Your task to perform on an android device: Search for sushi restaurants on Maps Image 0: 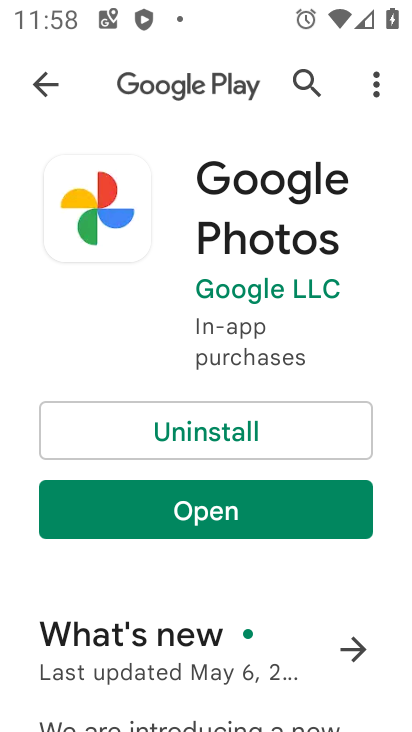
Step 0: press home button
Your task to perform on an android device: Search for sushi restaurants on Maps Image 1: 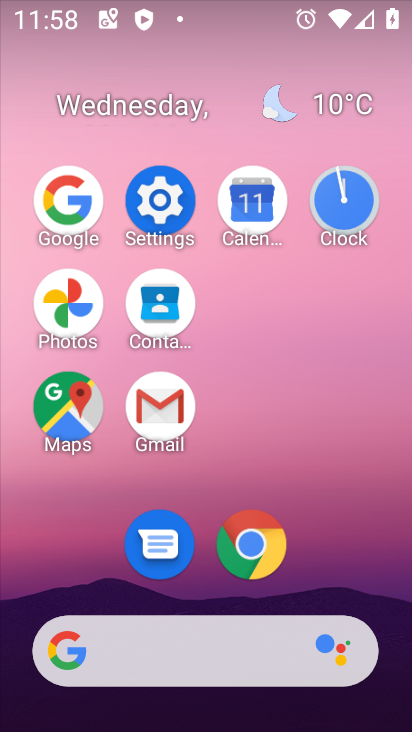
Step 1: click (71, 387)
Your task to perform on an android device: Search for sushi restaurants on Maps Image 2: 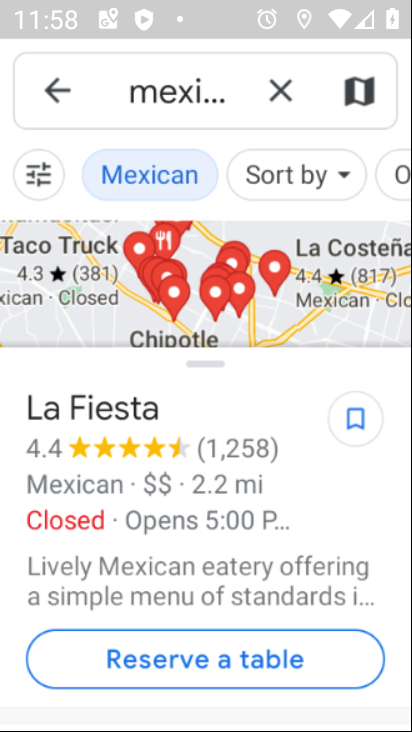
Step 2: click (289, 88)
Your task to perform on an android device: Search for sushi restaurants on Maps Image 3: 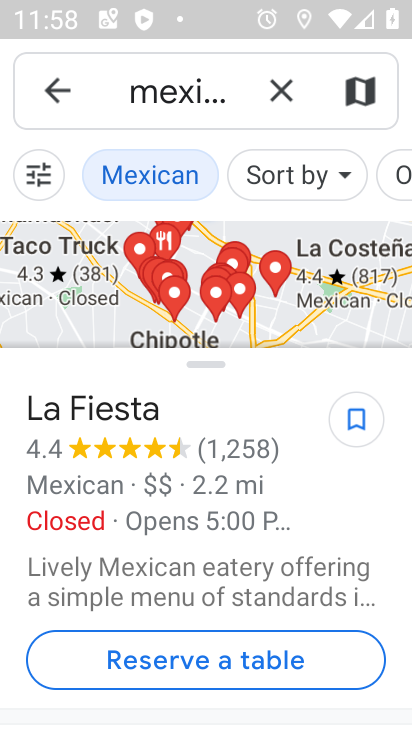
Step 3: click (289, 85)
Your task to perform on an android device: Search for sushi restaurants on Maps Image 4: 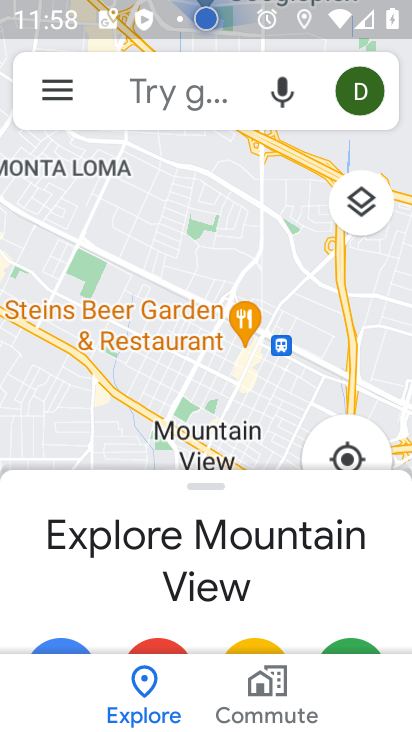
Step 4: click (191, 90)
Your task to perform on an android device: Search for sushi restaurants on Maps Image 5: 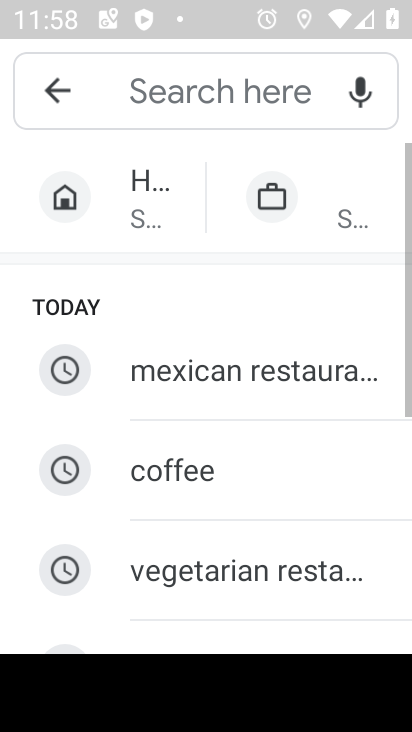
Step 5: drag from (238, 538) to (245, 232)
Your task to perform on an android device: Search for sushi restaurants on Maps Image 6: 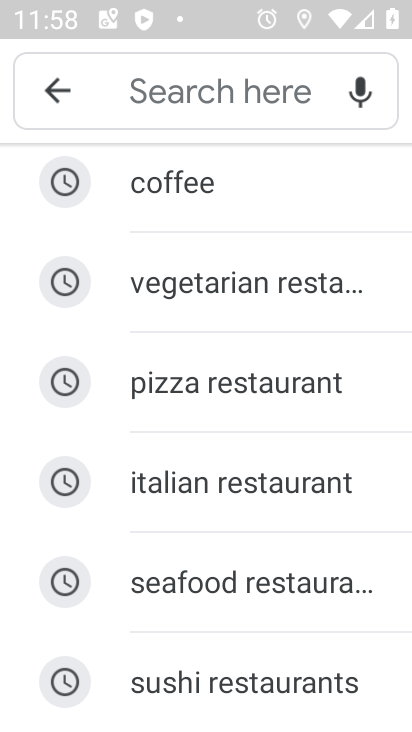
Step 6: click (224, 658)
Your task to perform on an android device: Search for sushi restaurants on Maps Image 7: 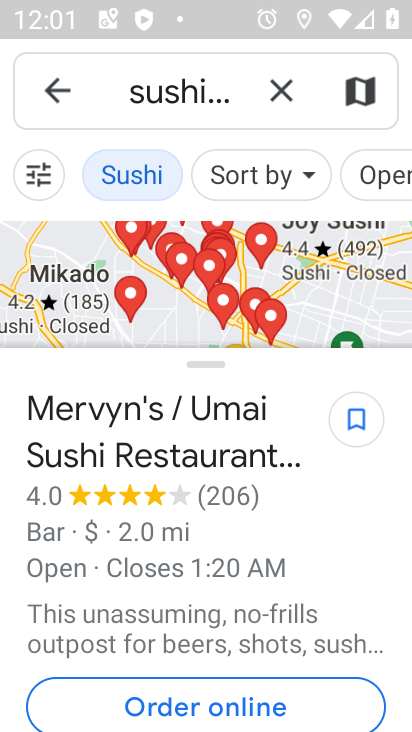
Step 7: task complete